Your task to perform on an android device: Open the map Image 0: 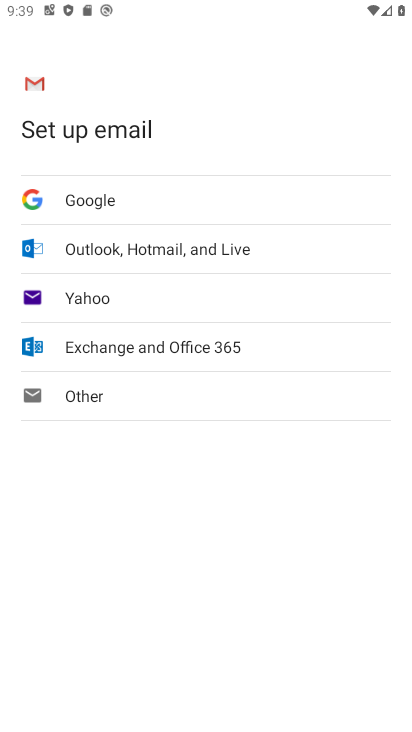
Step 0: press home button
Your task to perform on an android device: Open the map Image 1: 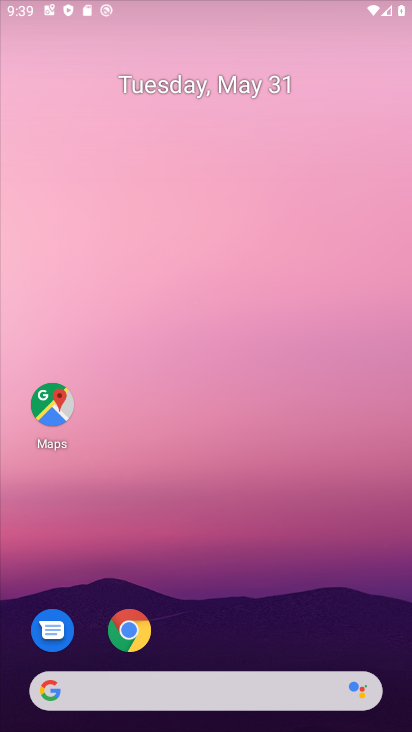
Step 1: drag from (207, 610) to (261, 164)
Your task to perform on an android device: Open the map Image 2: 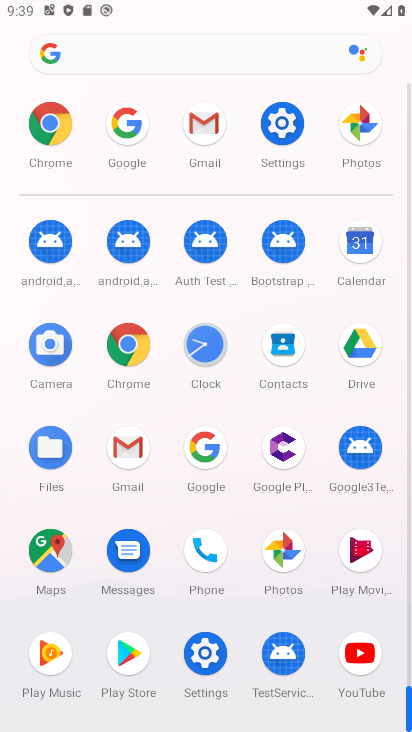
Step 2: click (61, 565)
Your task to perform on an android device: Open the map Image 3: 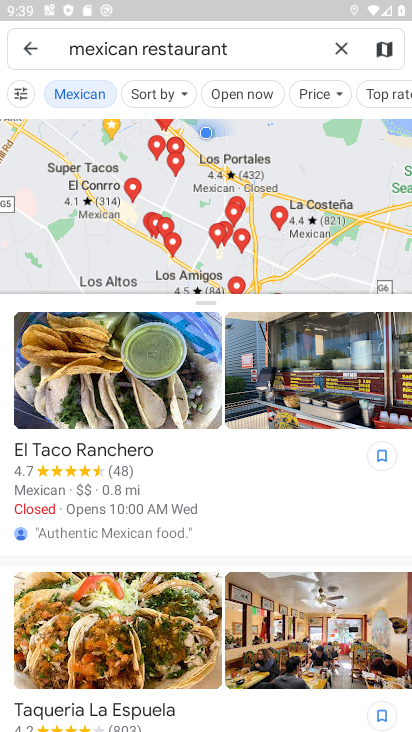
Step 3: task complete